Your task to perform on an android device: change your default location settings in chrome Image 0: 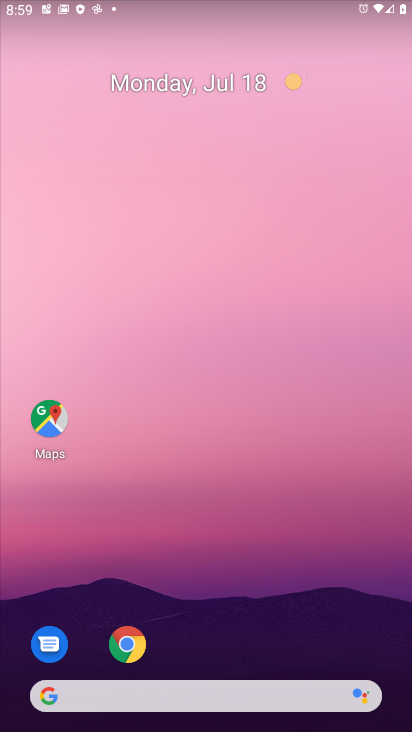
Step 0: drag from (384, 659) to (247, 7)
Your task to perform on an android device: change your default location settings in chrome Image 1: 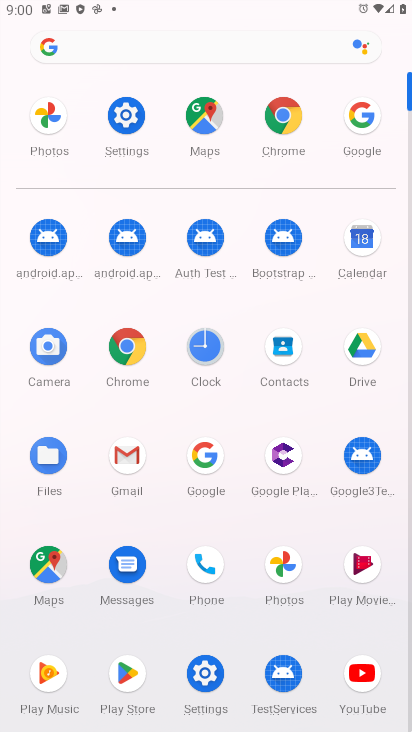
Step 1: click (120, 347)
Your task to perform on an android device: change your default location settings in chrome Image 2: 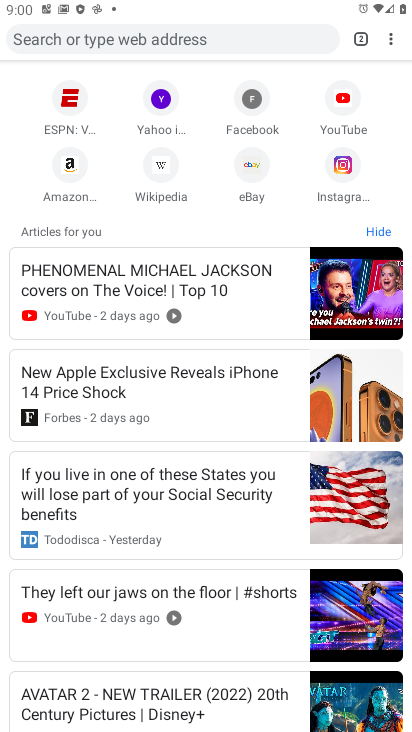
Step 2: click (389, 38)
Your task to perform on an android device: change your default location settings in chrome Image 3: 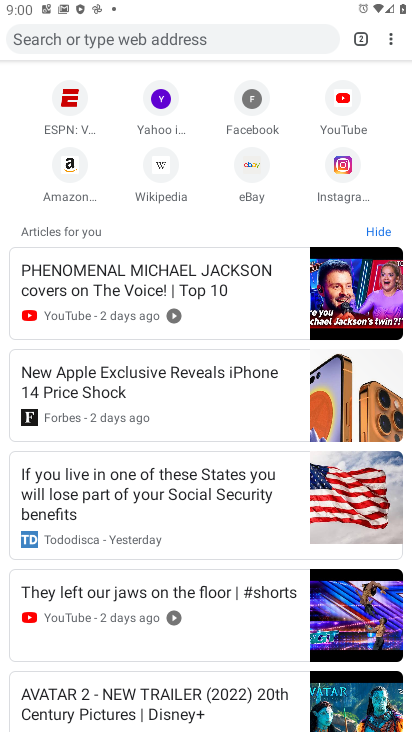
Step 3: click (395, 30)
Your task to perform on an android device: change your default location settings in chrome Image 4: 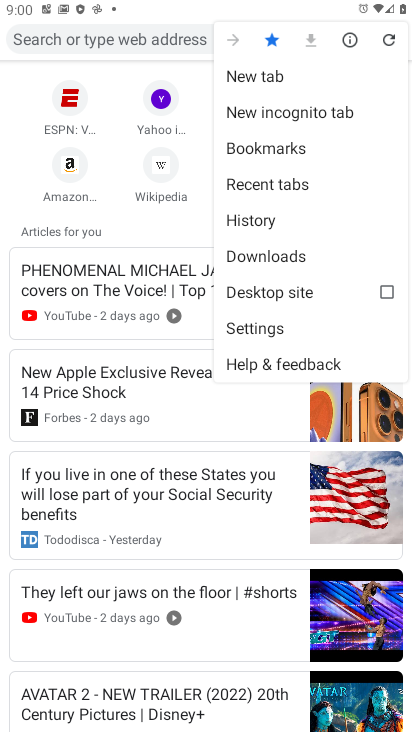
Step 4: click (266, 331)
Your task to perform on an android device: change your default location settings in chrome Image 5: 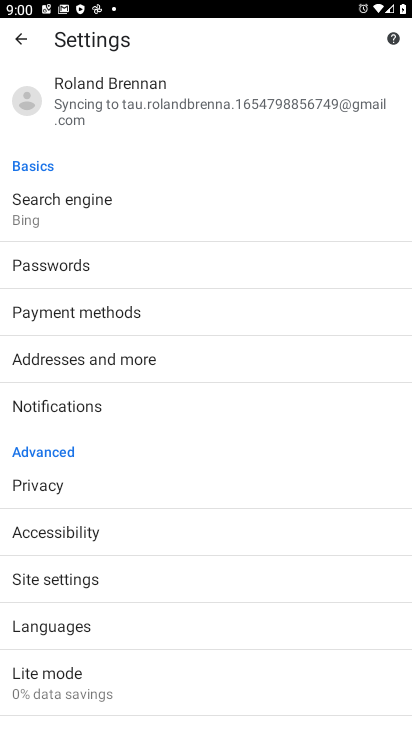
Step 5: click (90, 207)
Your task to perform on an android device: change your default location settings in chrome Image 6: 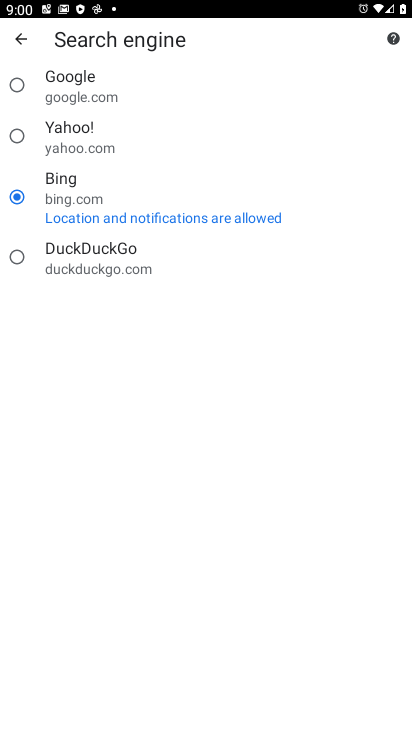
Step 6: click (74, 86)
Your task to perform on an android device: change your default location settings in chrome Image 7: 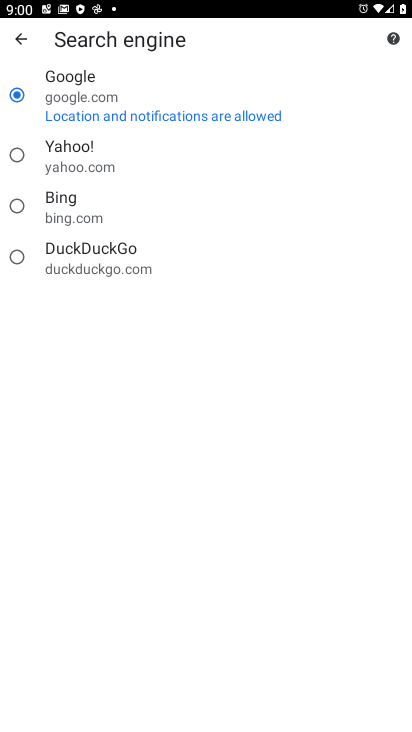
Step 7: task complete